Your task to perform on an android device: turn on the 12-hour format for clock Image 0: 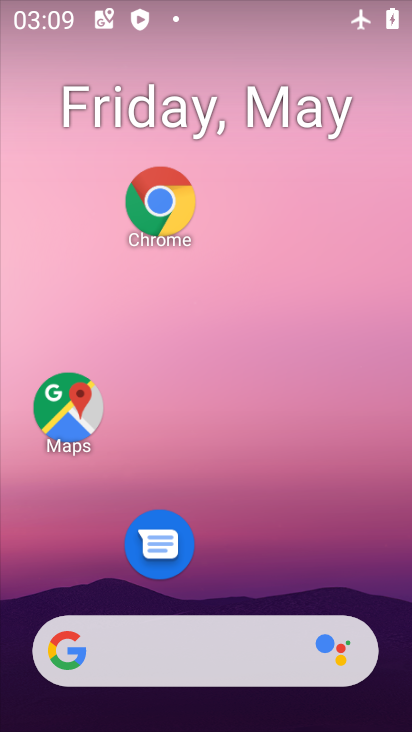
Step 0: drag from (232, 565) to (302, 202)
Your task to perform on an android device: turn on the 12-hour format for clock Image 1: 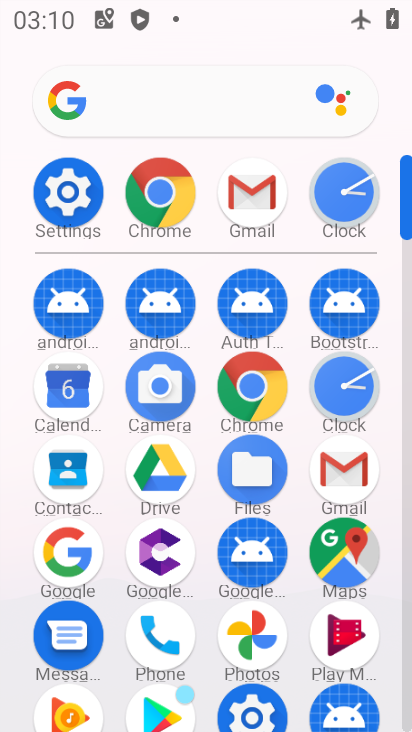
Step 1: drag from (304, 270) to (296, 97)
Your task to perform on an android device: turn on the 12-hour format for clock Image 2: 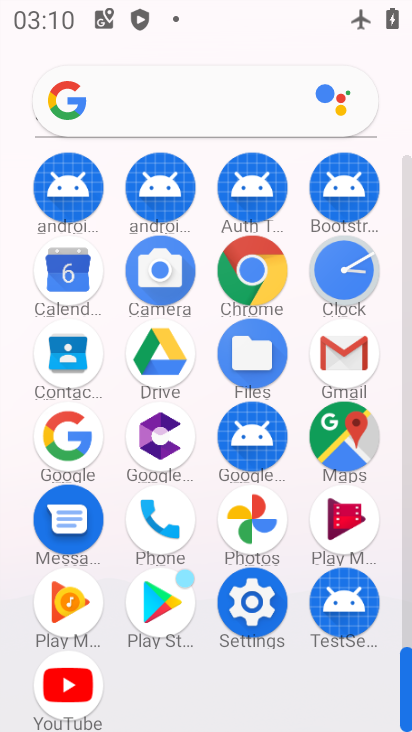
Step 2: click (337, 278)
Your task to perform on an android device: turn on the 12-hour format for clock Image 3: 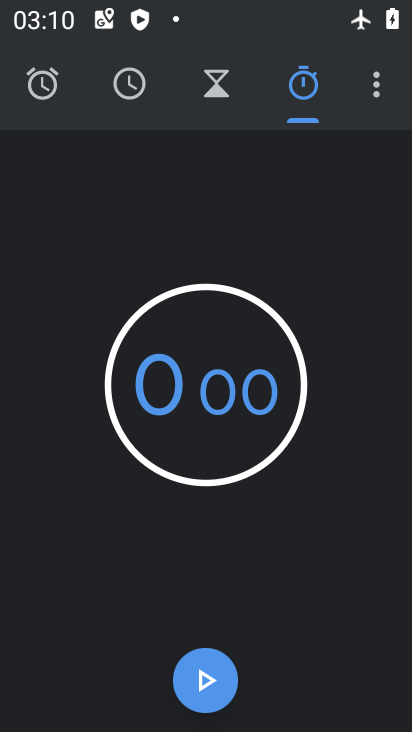
Step 3: click (378, 87)
Your task to perform on an android device: turn on the 12-hour format for clock Image 4: 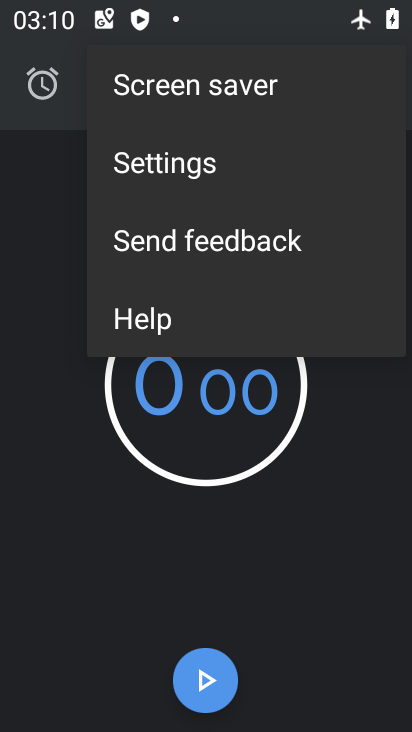
Step 4: click (244, 186)
Your task to perform on an android device: turn on the 12-hour format for clock Image 5: 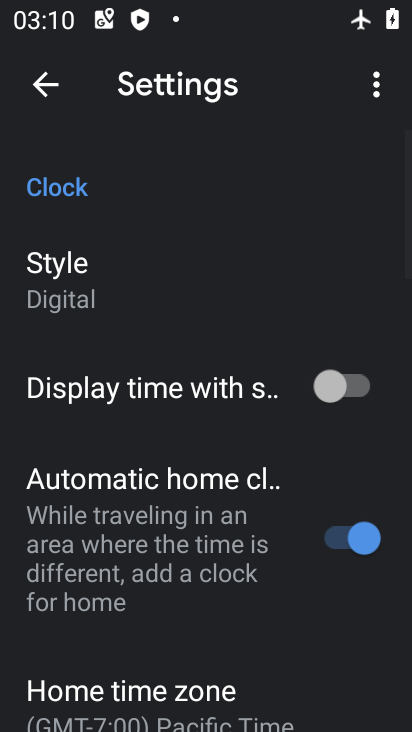
Step 5: drag from (195, 552) to (222, 287)
Your task to perform on an android device: turn on the 12-hour format for clock Image 6: 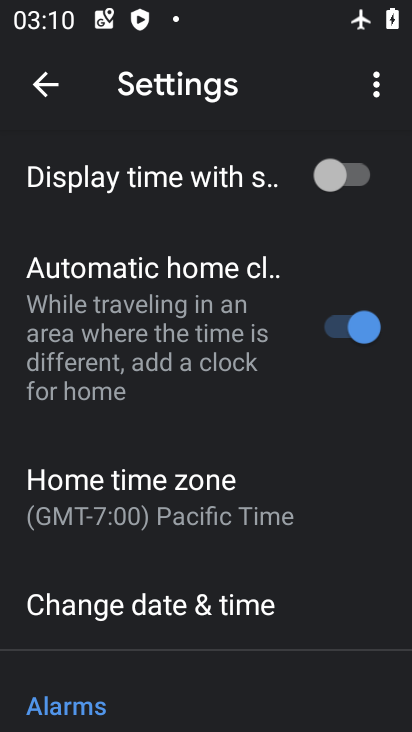
Step 6: drag from (204, 565) to (215, 365)
Your task to perform on an android device: turn on the 12-hour format for clock Image 7: 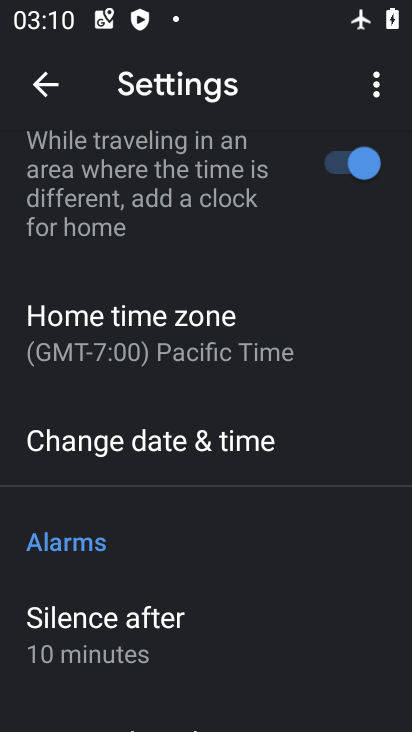
Step 7: drag from (219, 535) to (218, 415)
Your task to perform on an android device: turn on the 12-hour format for clock Image 8: 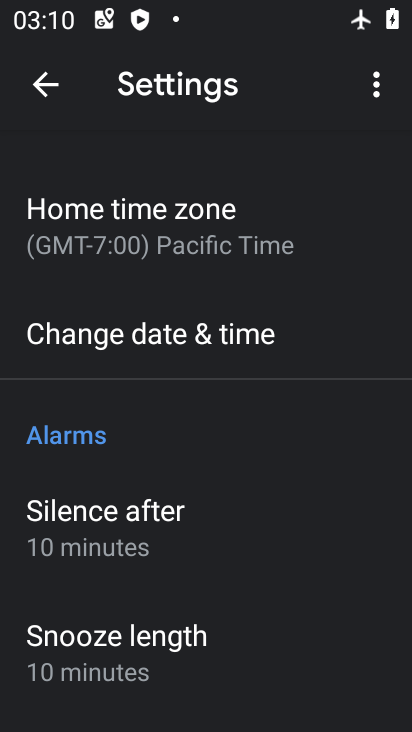
Step 8: click (222, 353)
Your task to perform on an android device: turn on the 12-hour format for clock Image 9: 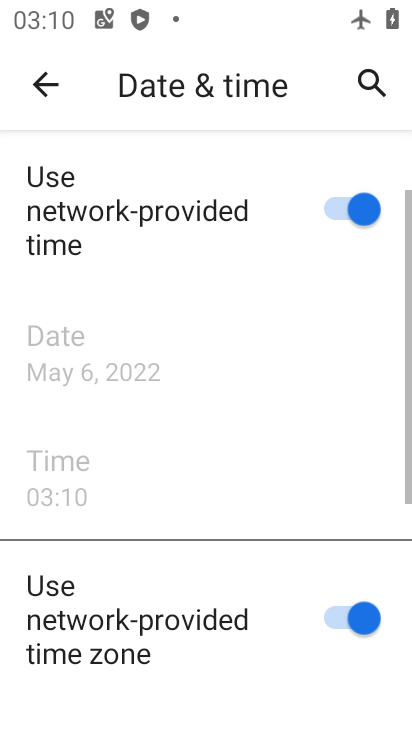
Step 9: drag from (226, 546) to (247, 236)
Your task to perform on an android device: turn on the 12-hour format for clock Image 10: 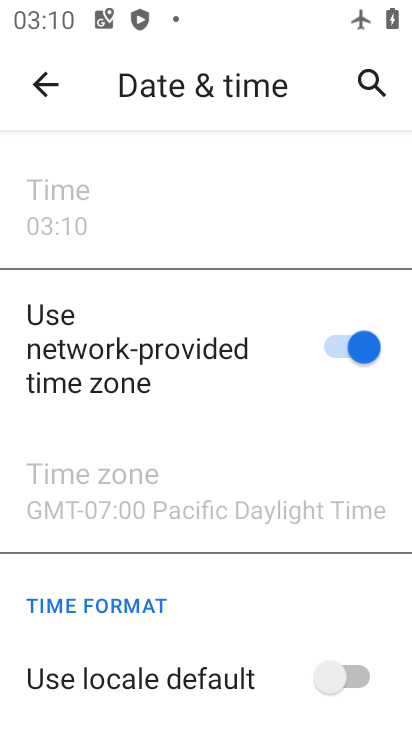
Step 10: drag from (263, 667) to (283, 270)
Your task to perform on an android device: turn on the 12-hour format for clock Image 11: 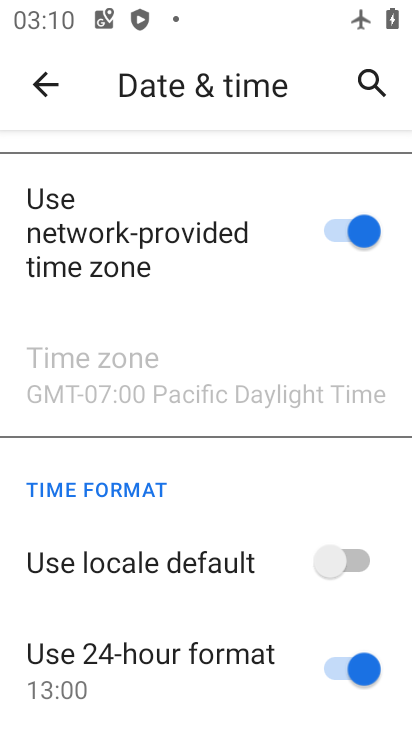
Step 11: click (356, 679)
Your task to perform on an android device: turn on the 12-hour format for clock Image 12: 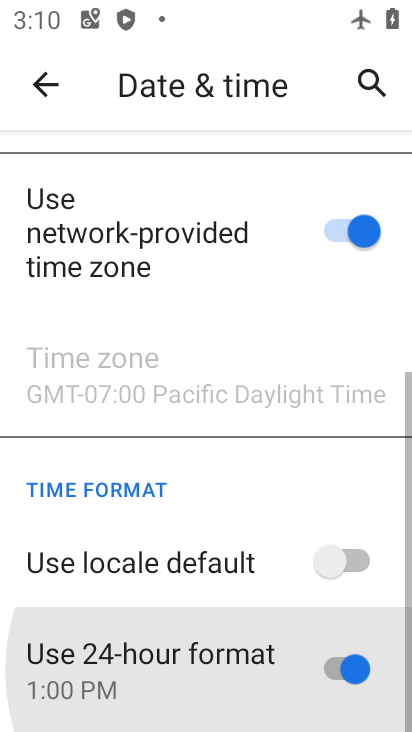
Step 12: click (328, 558)
Your task to perform on an android device: turn on the 12-hour format for clock Image 13: 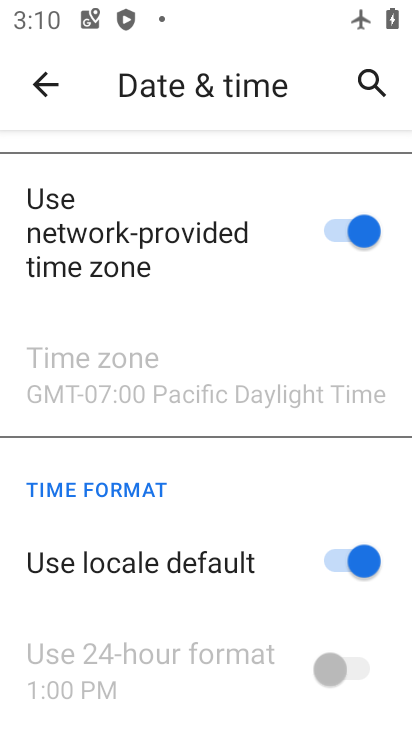
Step 13: task complete